Your task to perform on an android device: turn off translation in the chrome app Image 0: 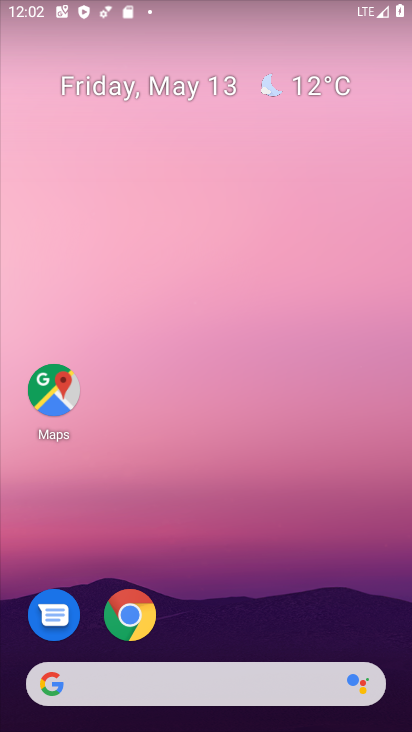
Step 0: click (145, 614)
Your task to perform on an android device: turn off translation in the chrome app Image 1: 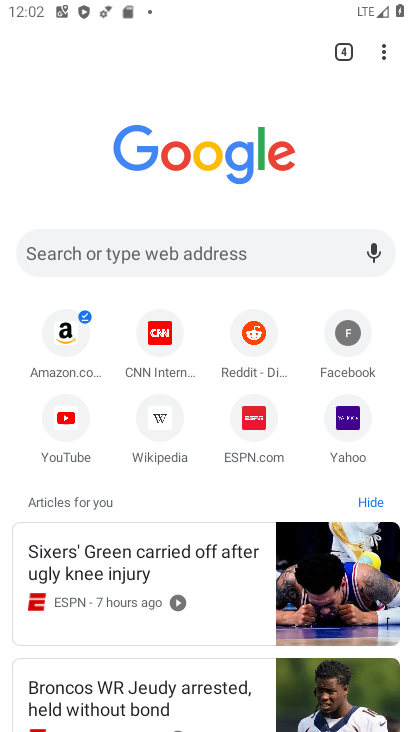
Step 1: drag from (392, 59) to (222, 414)
Your task to perform on an android device: turn off translation in the chrome app Image 2: 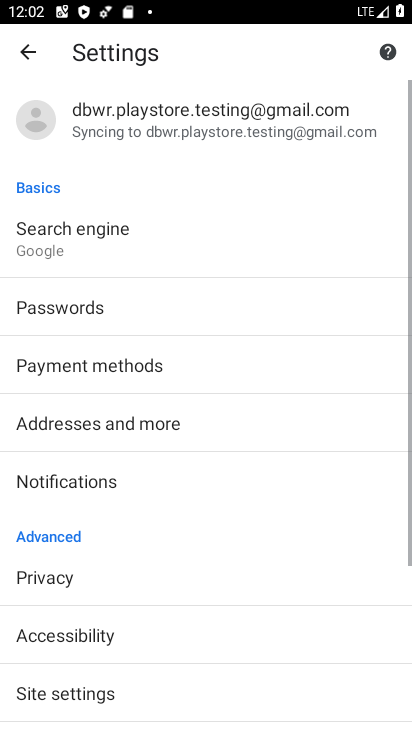
Step 2: drag from (215, 572) to (222, 316)
Your task to perform on an android device: turn off translation in the chrome app Image 3: 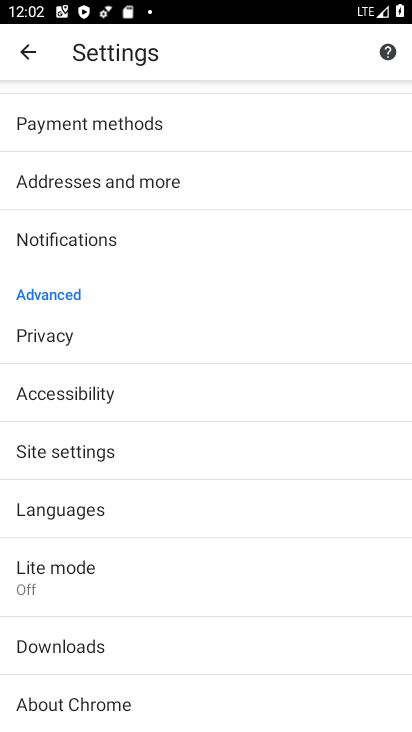
Step 3: click (131, 509)
Your task to perform on an android device: turn off translation in the chrome app Image 4: 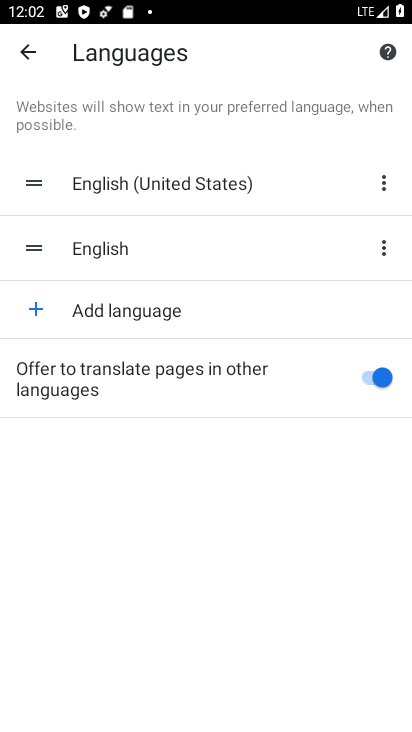
Step 4: click (359, 375)
Your task to perform on an android device: turn off translation in the chrome app Image 5: 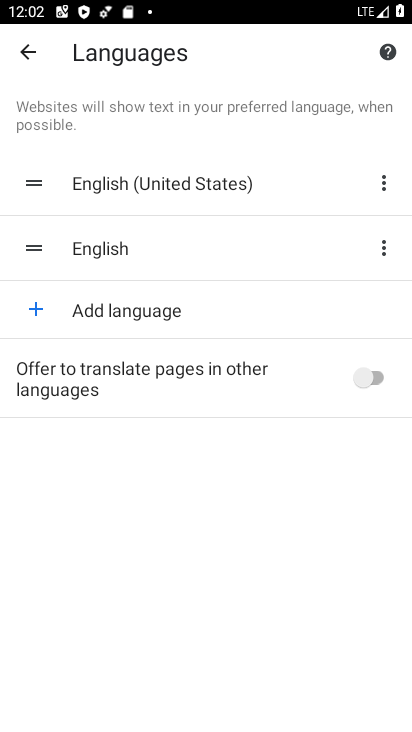
Step 5: task complete